Your task to perform on an android device: Open Youtube and go to the subscriptions tab Image 0: 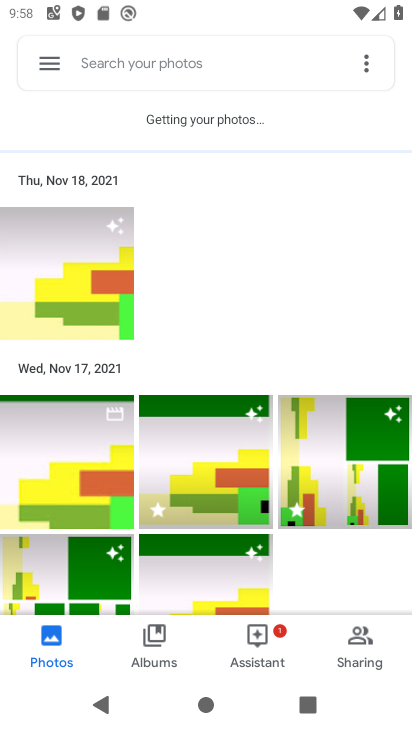
Step 0: press back button
Your task to perform on an android device: Open Youtube and go to the subscriptions tab Image 1: 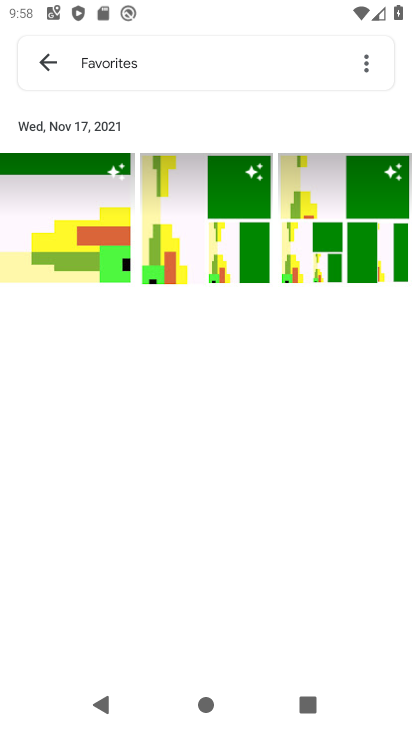
Step 1: press back button
Your task to perform on an android device: Open Youtube and go to the subscriptions tab Image 2: 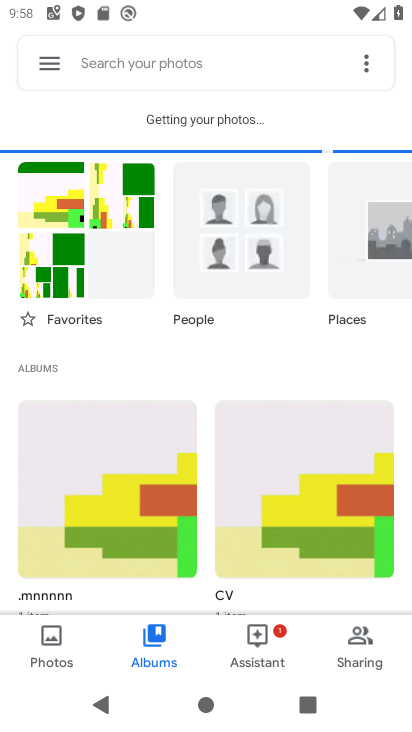
Step 2: press back button
Your task to perform on an android device: Open Youtube and go to the subscriptions tab Image 3: 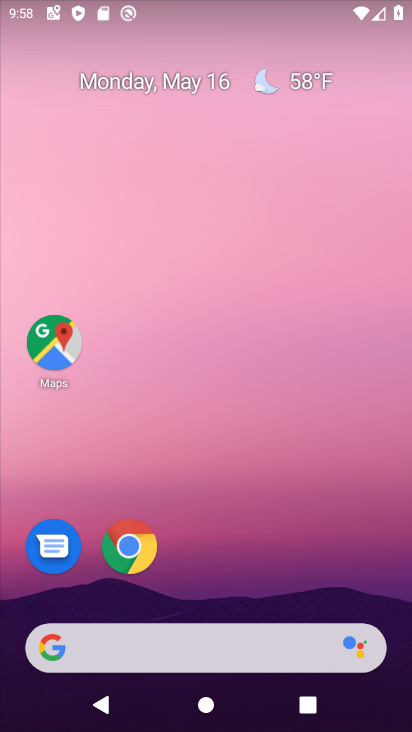
Step 3: drag from (227, 537) to (169, 44)
Your task to perform on an android device: Open Youtube and go to the subscriptions tab Image 4: 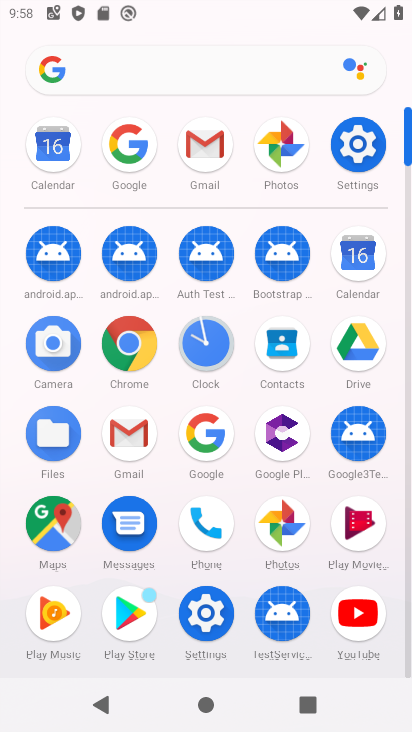
Step 4: click (356, 615)
Your task to perform on an android device: Open Youtube and go to the subscriptions tab Image 5: 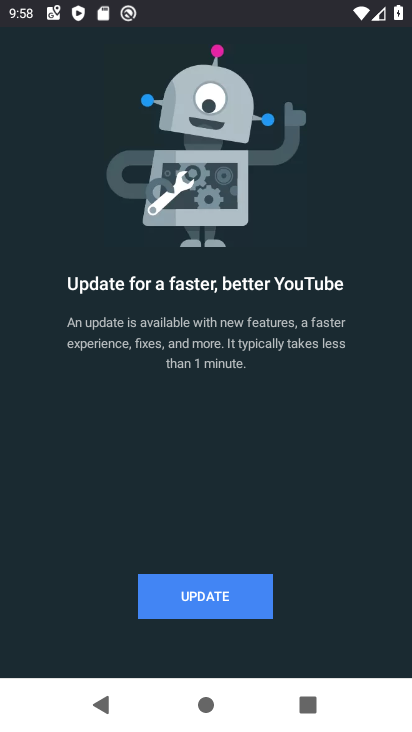
Step 5: click (211, 595)
Your task to perform on an android device: Open Youtube and go to the subscriptions tab Image 6: 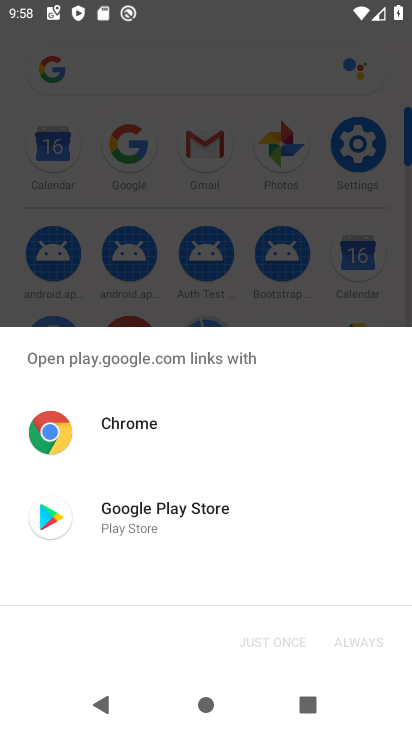
Step 6: click (137, 513)
Your task to perform on an android device: Open Youtube and go to the subscriptions tab Image 7: 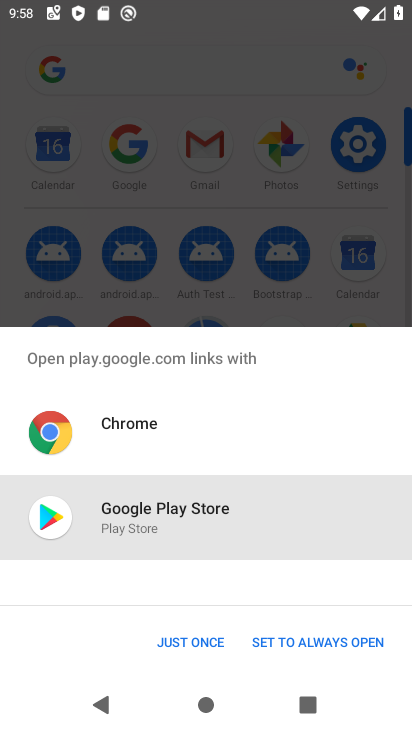
Step 7: click (187, 643)
Your task to perform on an android device: Open Youtube and go to the subscriptions tab Image 8: 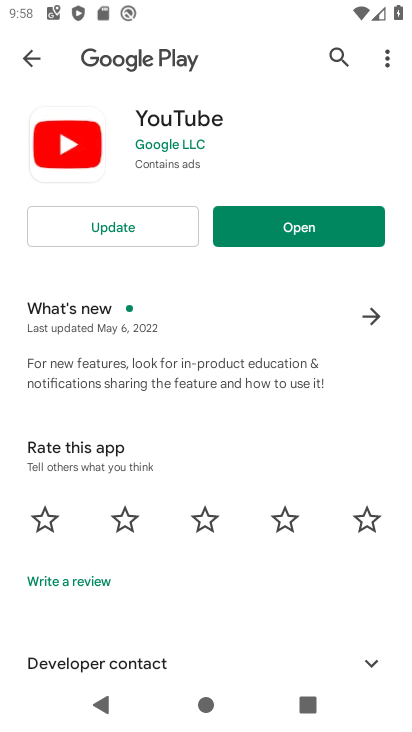
Step 8: click (115, 226)
Your task to perform on an android device: Open Youtube and go to the subscriptions tab Image 9: 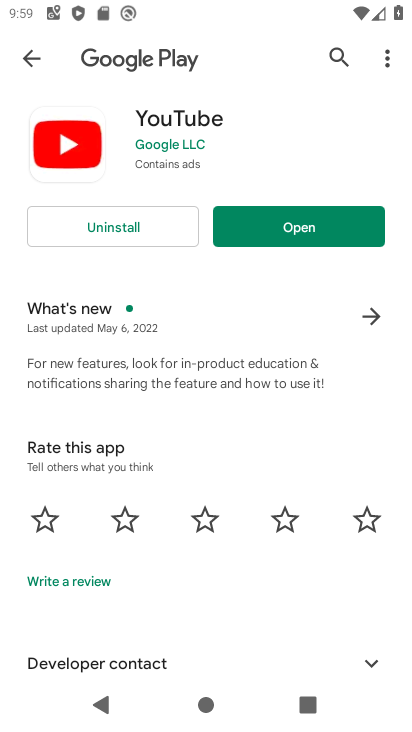
Step 9: click (278, 226)
Your task to perform on an android device: Open Youtube and go to the subscriptions tab Image 10: 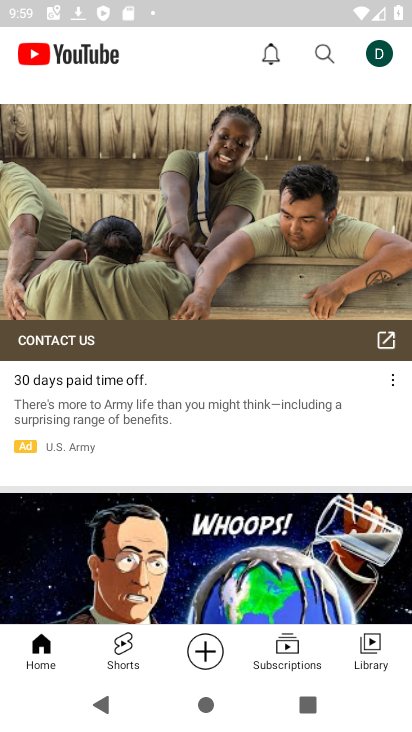
Step 10: click (288, 645)
Your task to perform on an android device: Open Youtube and go to the subscriptions tab Image 11: 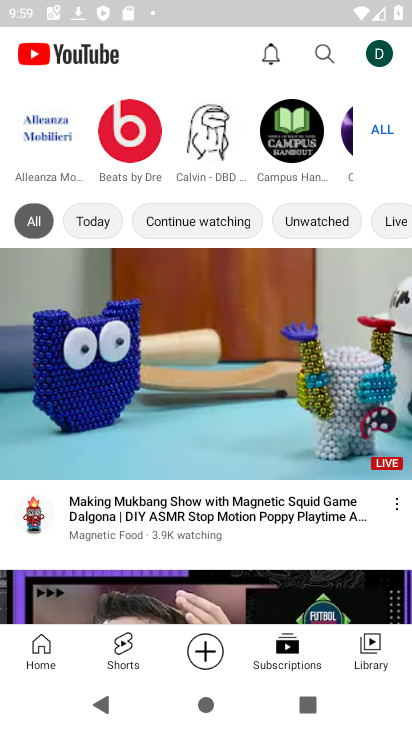
Step 11: task complete